Your task to perform on an android device: Open calendar and show me the third week of next month Image 0: 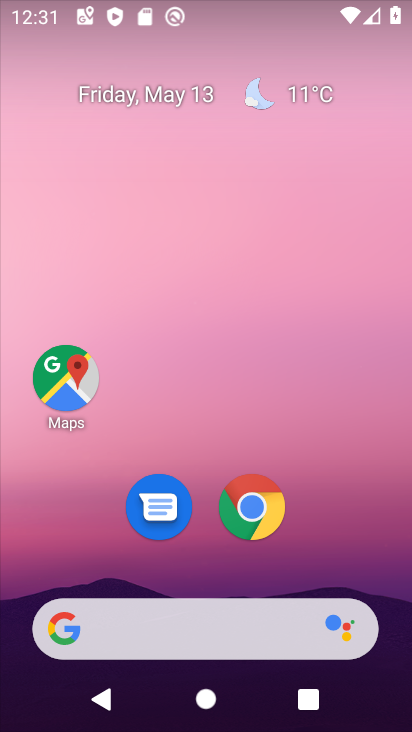
Step 0: drag from (207, 593) to (78, 7)
Your task to perform on an android device: Open calendar and show me the third week of next month Image 1: 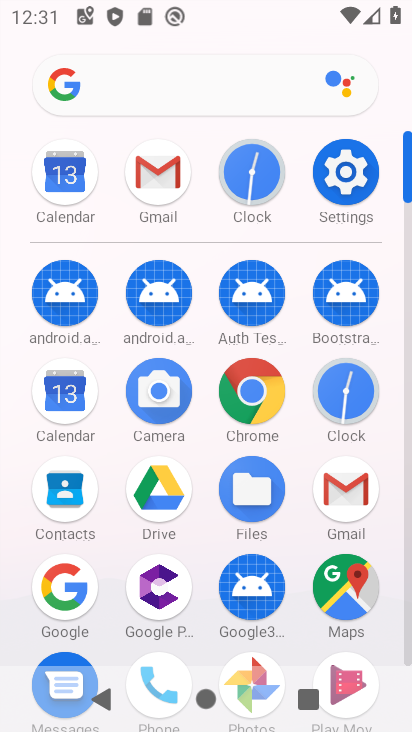
Step 1: click (62, 388)
Your task to perform on an android device: Open calendar and show me the third week of next month Image 2: 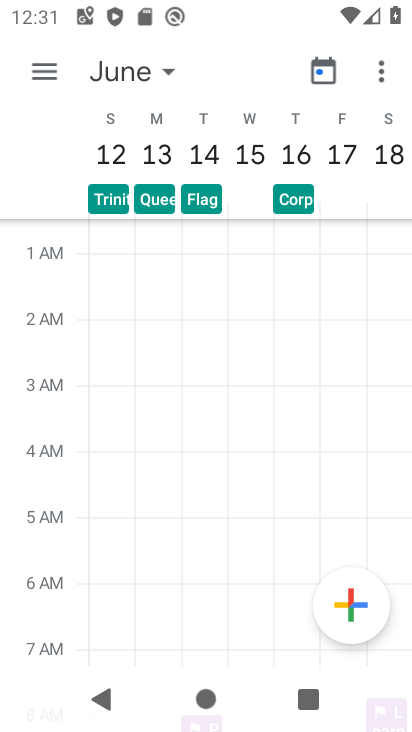
Step 2: task complete